Your task to perform on an android device: Open notification settings Image 0: 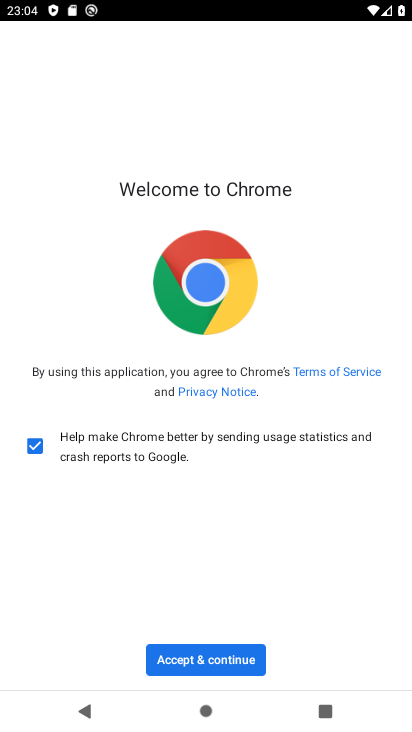
Step 0: press home button
Your task to perform on an android device: Open notification settings Image 1: 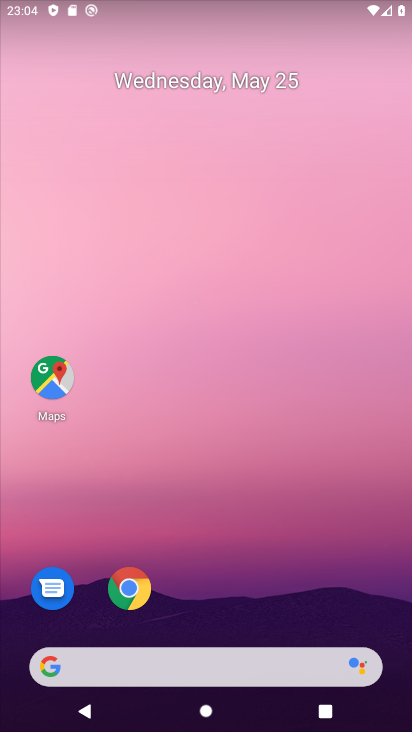
Step 1: drag from (329, 399) to (364, 174)
Your task to perform on an android device: Open notification settings Image 2: 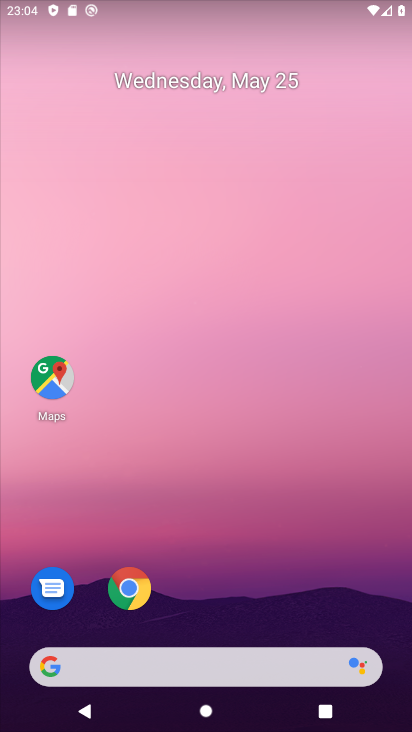
Step 2: drag from (193, 611) to (287, 273)
Your task to perform on an android device: Open notification settings Image 3: 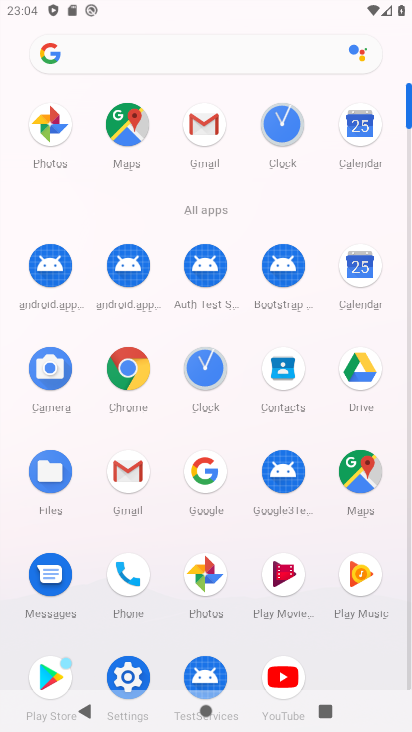
Step 3: click (127, 675)
Your task to perform on an android device: Open notification settings Image 4: 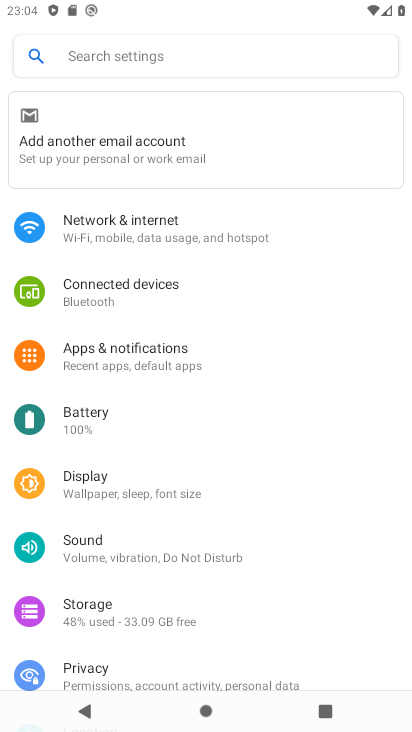
Step 4: click (171, 353)
Your task to perform on an android device: Open notification settings Image 5: 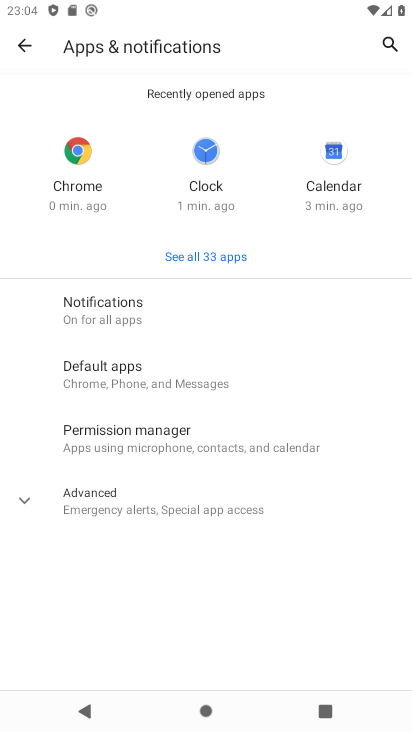
Step 5: task complete